Your task to perform on an android device: change alarm snooze length Image 0: 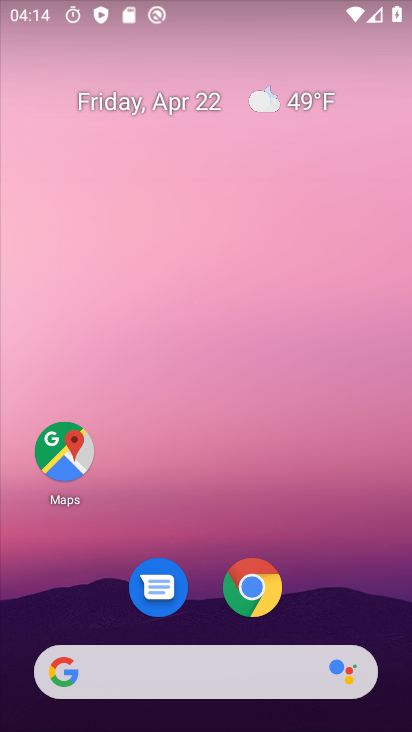
Step 0: drag from (375, 620) to (376, 103)
Your task to perform on an android device: change alarm snooze length Image 1: 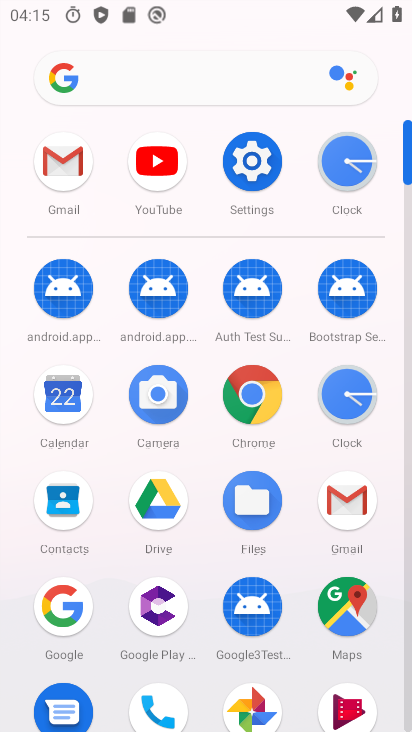
Step 1: click (345, 168)
Your task to perform on an android device: change alarm snooze length Image 2: 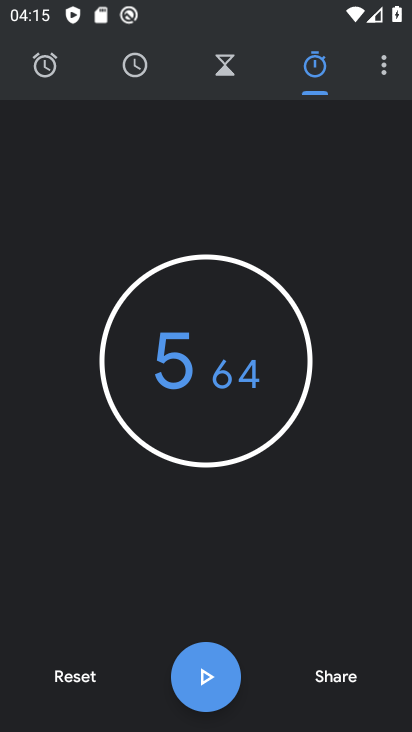
Step 2: click (382, 68)
Your task to perform on an android device: change alarm snooze length Image 3: 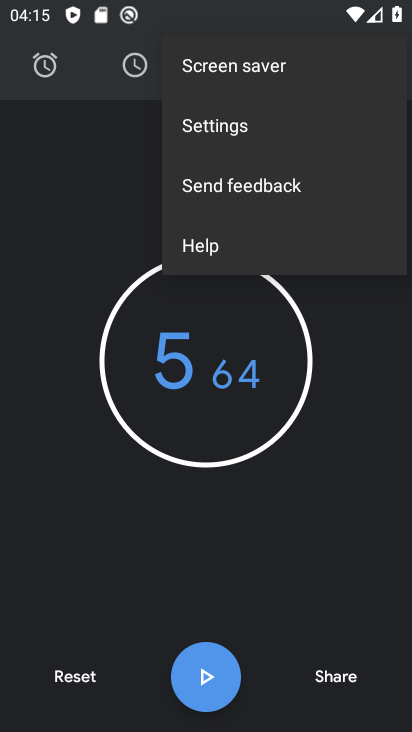
Step 3: click (227, 126)
Your task to perform on an android device: change alarm snooze length Image 4: 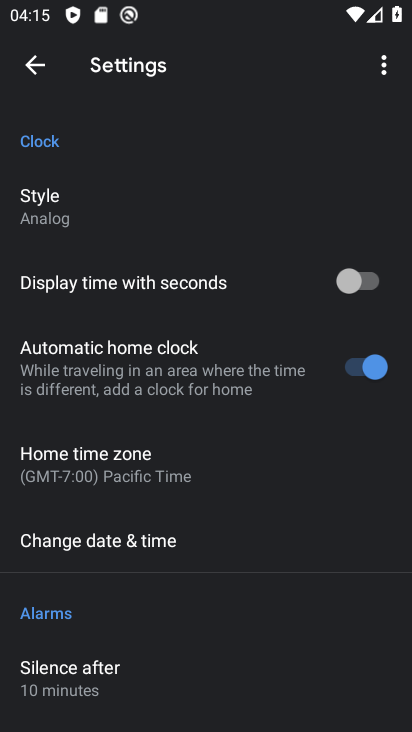
Step 4: drag from (210, 528) to (207, 74)
Your task to perform on an android device: change alarm snooze length Image 5: 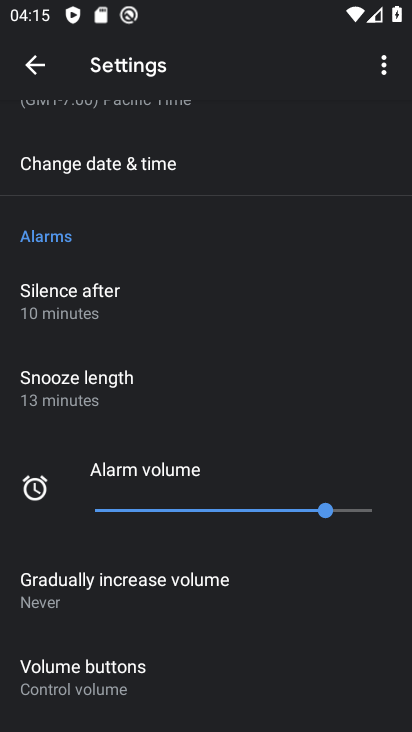
Step 5: click (54, 393)
Your task to perform on an android device: change alarm snooze length Image 6: 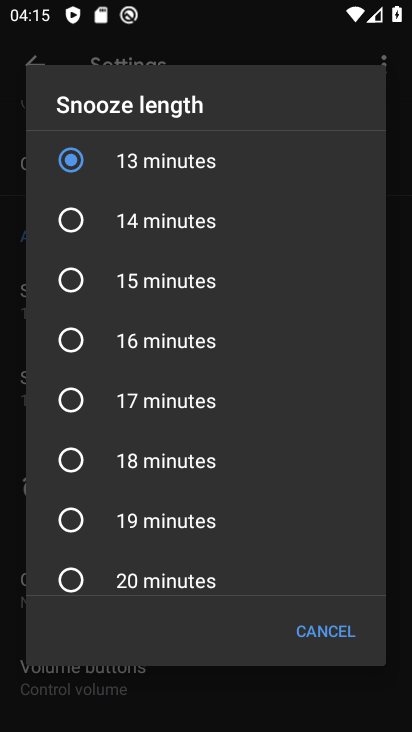
Step 6: click (68, 283)
Your task to perform on an android device: change alarm snooze length Image 7: 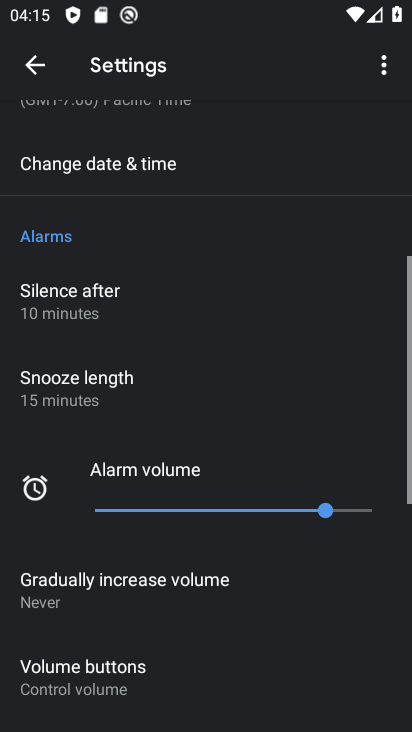
Step 7: task complete